Your task to perform on an android device: Go to internet settings Image 0: 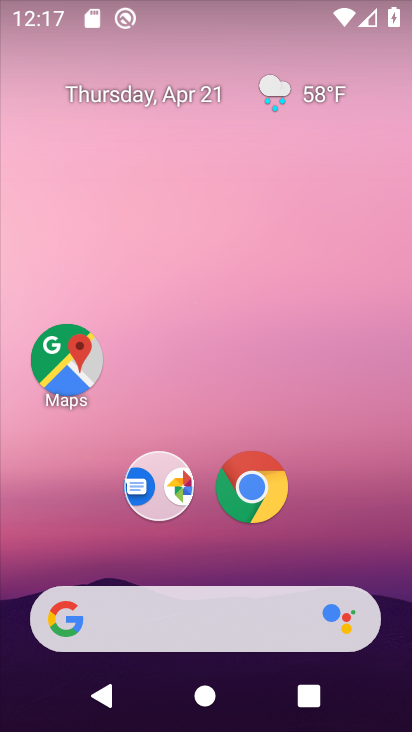
Step 0: drag from (238, 657) to (239, 106)
Your task to perform on an android device: Go to internet settings Image 1: 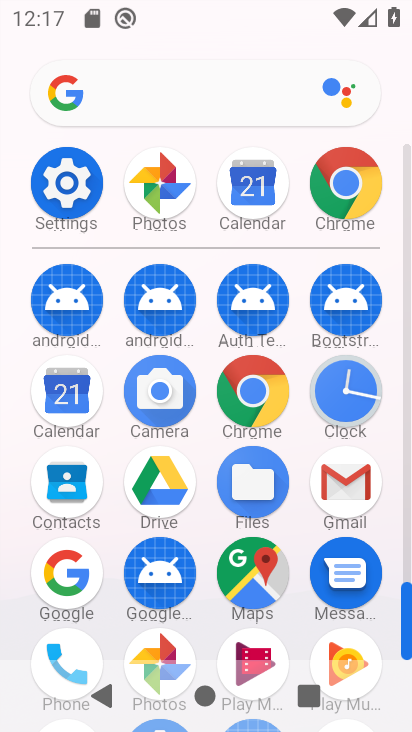
Step 1: click (58, 165)
Your task to perform on an android device: Go to internet settings Image 2: 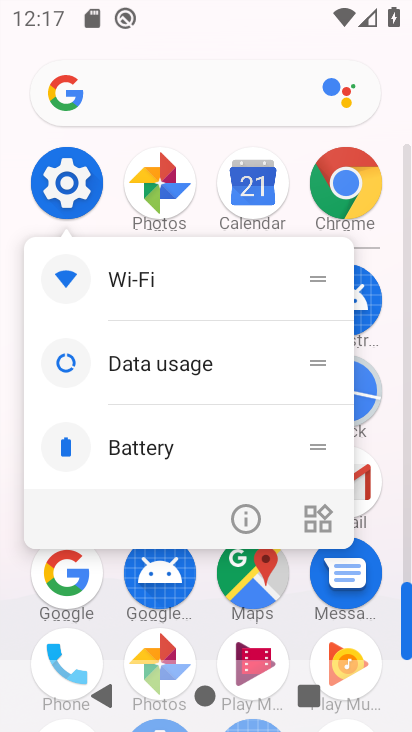
Step 2: click (70, 179)
Your task to perform on an android device: Go to internet settings Image 3: 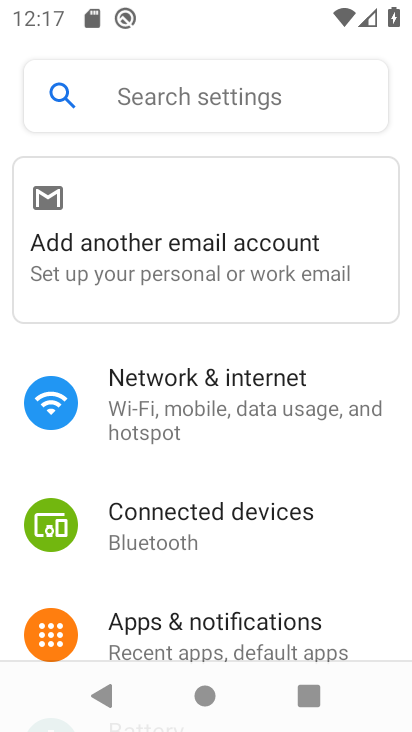
Step 3: click (146, 376)
Your task to perform on an android device: Go to internet settings Image 4: 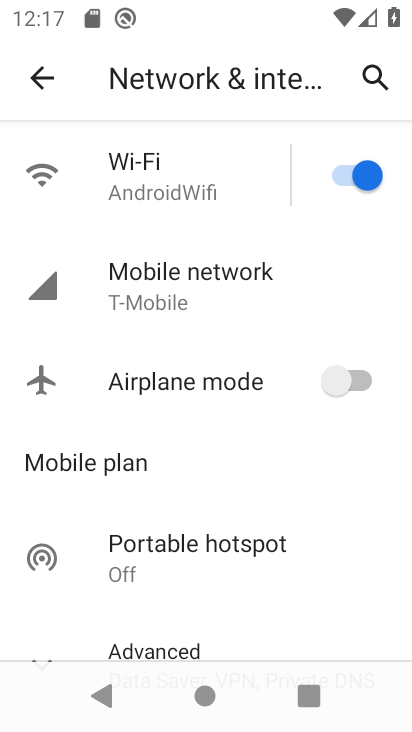
Step 4: click (234, 274)
Your task to perform on an android device: Go to internet settings Image 5: 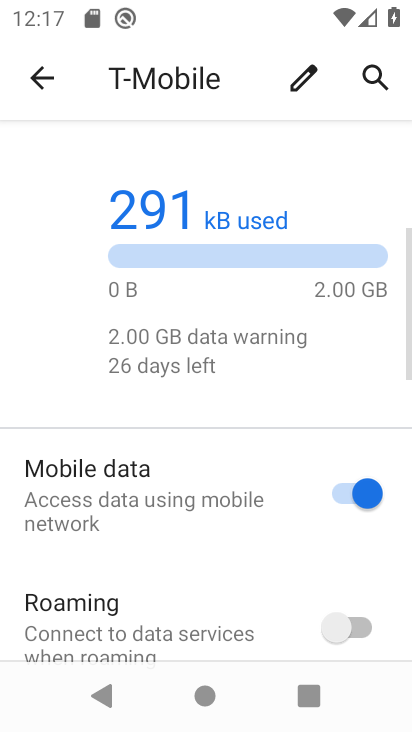
Step 5: task complete